Your task to perform on an android device: turn on improve location accuracy Image 0: 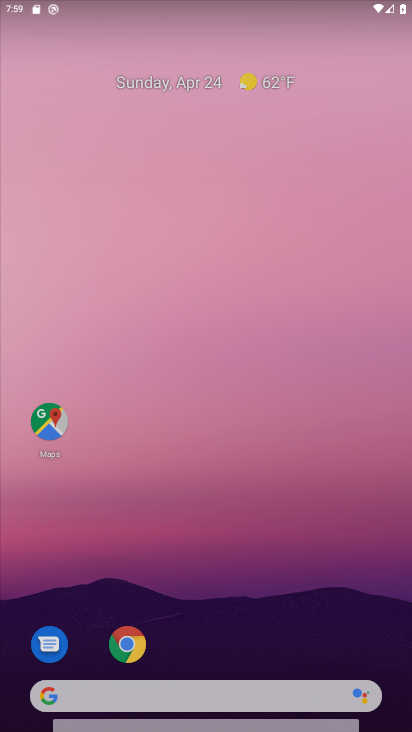
Step 0: drag from (207, 655) to (219, 29)
Your task to perform on an android device: turn on improve location accuracy Image 1: 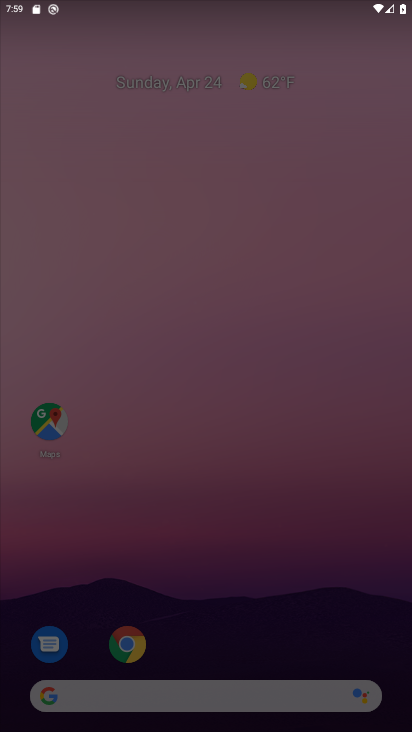
Step 1: press home button
Your task to perform on an android device: turn on improve location accuracy Image 2: 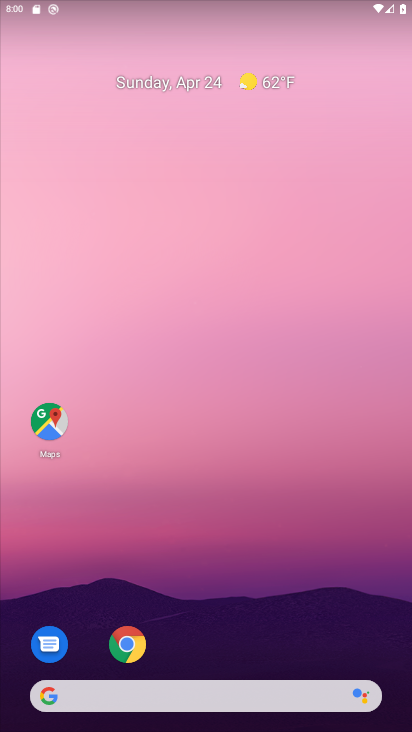
Step 2: drag from (234, 651) to (218, 102)
Your task to perform on an android device: turn on improve location accuracy Image 3: 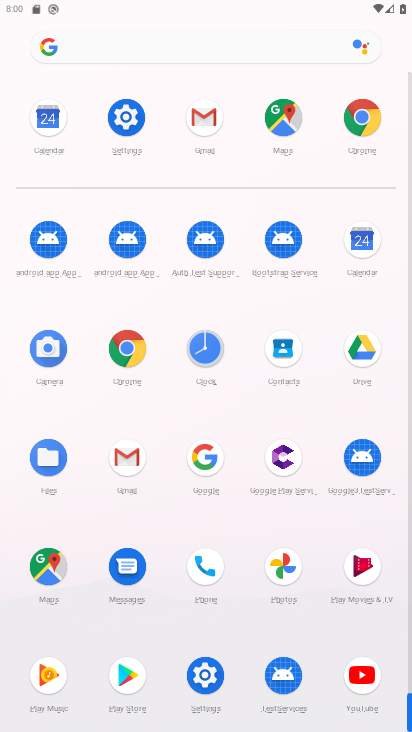
Step 3: click (208, 674)
Your task to perform on an android device: turn on improve location accuracy Image 4: 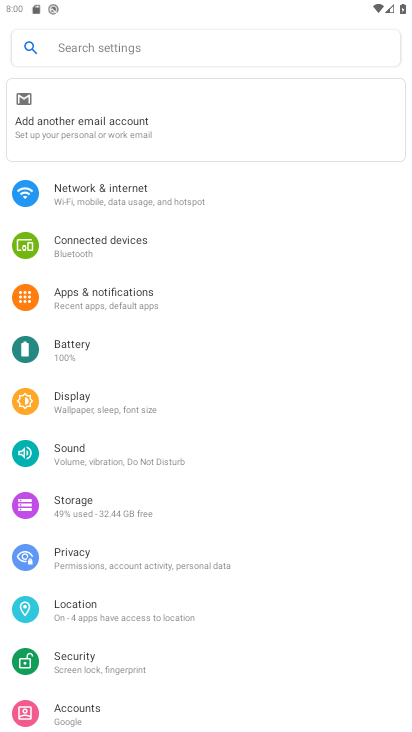
Step 4: click (107, 604)
Your task to perform on an android device: turn on improve location accuracy Image 5: 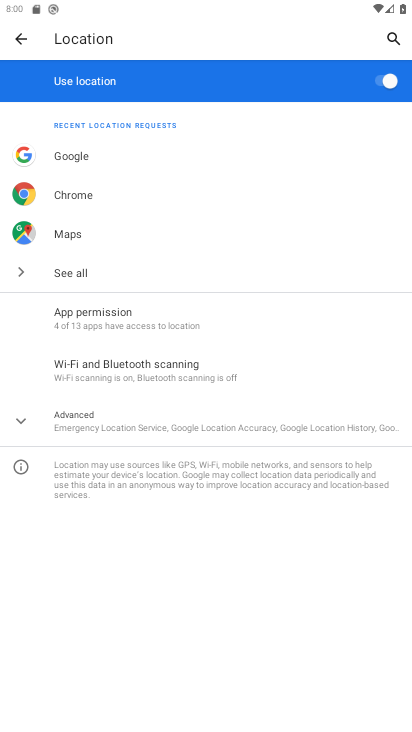
Step 5: click (24, 416)
Your task to perform on an android device: turn on improve location accuracy Image 6: 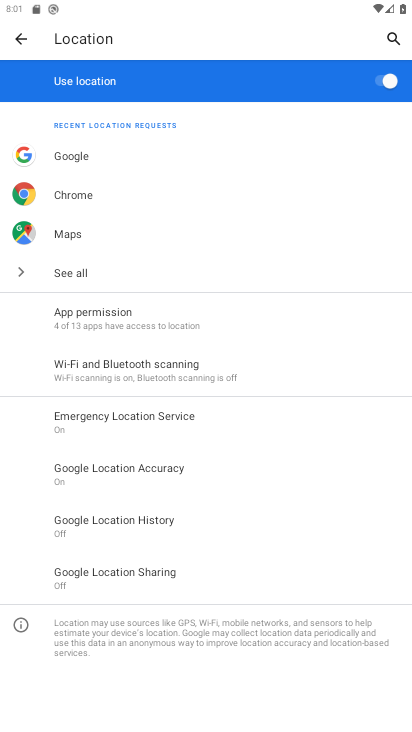
Step 6: click (104, 476)
Your task to perform on an android device: turn on improve location accuracy Image 7: 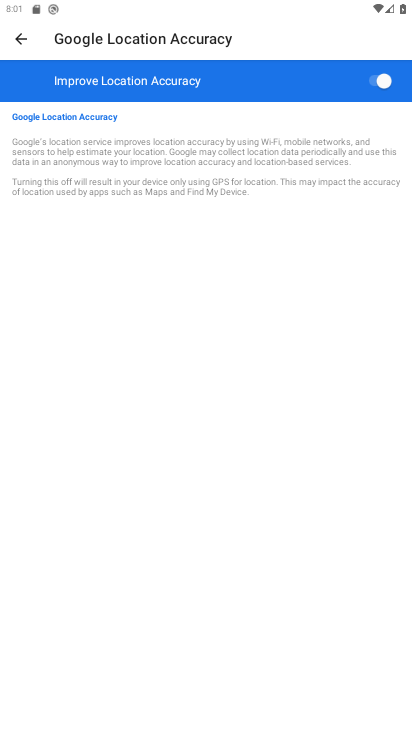
Step 7: task complete